Your task to perform on an android device: open app "Etsy: Buy & Sell Unique Items" (install if not already installed) Image 0: 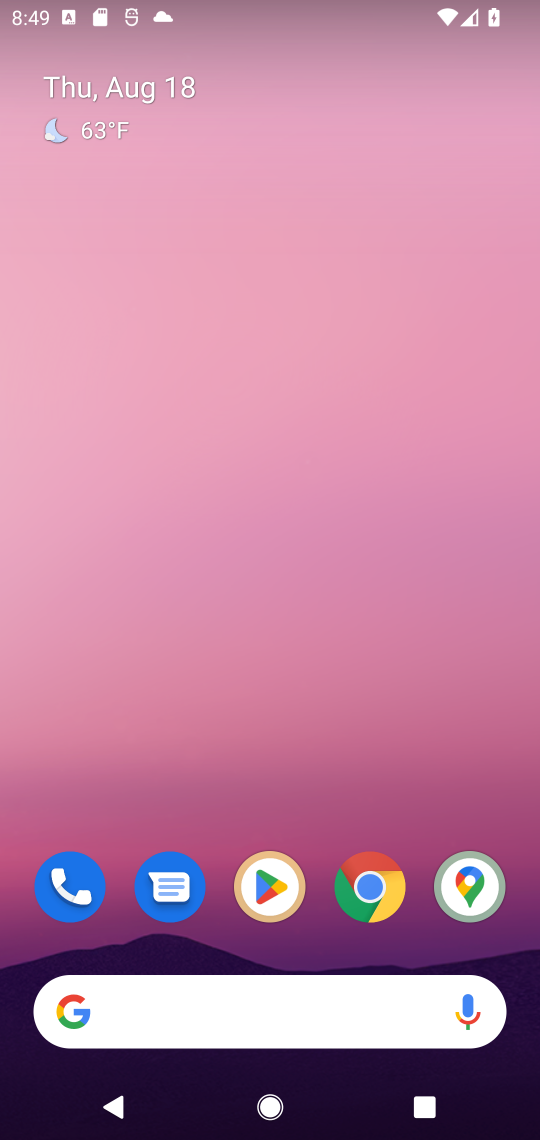
Step 0: click (264, 886)
Your task to perform on an android device: open app "Etsy: Buy & Sell Unique Items" (install if not already installed) Image 1: 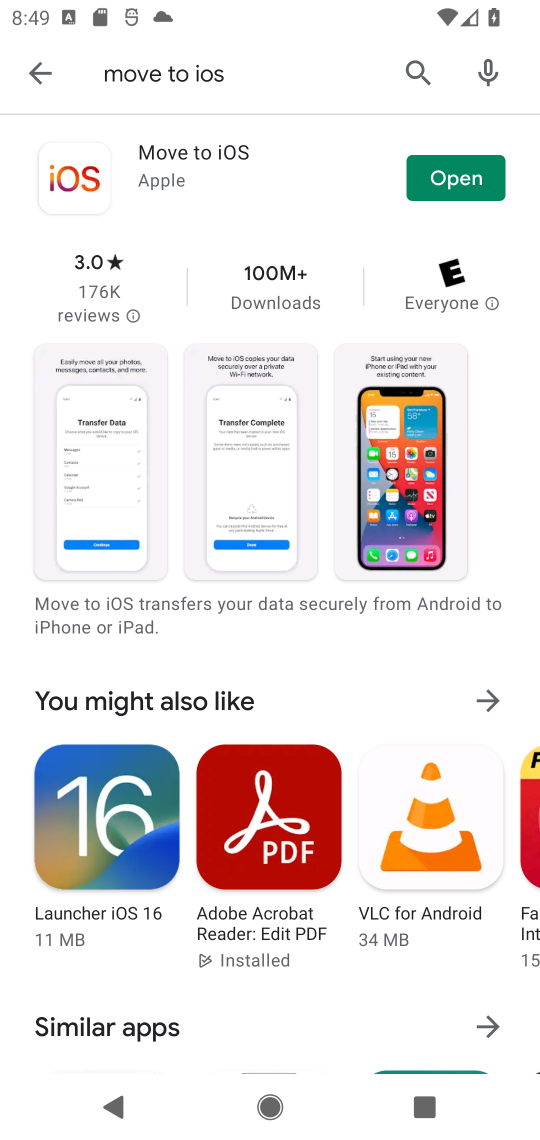
Step 1: click (417, 69)
Your task to perform on an android device: open app "Etsy: Buy & Sell Unique Items" (install if not already installed) Image 2: 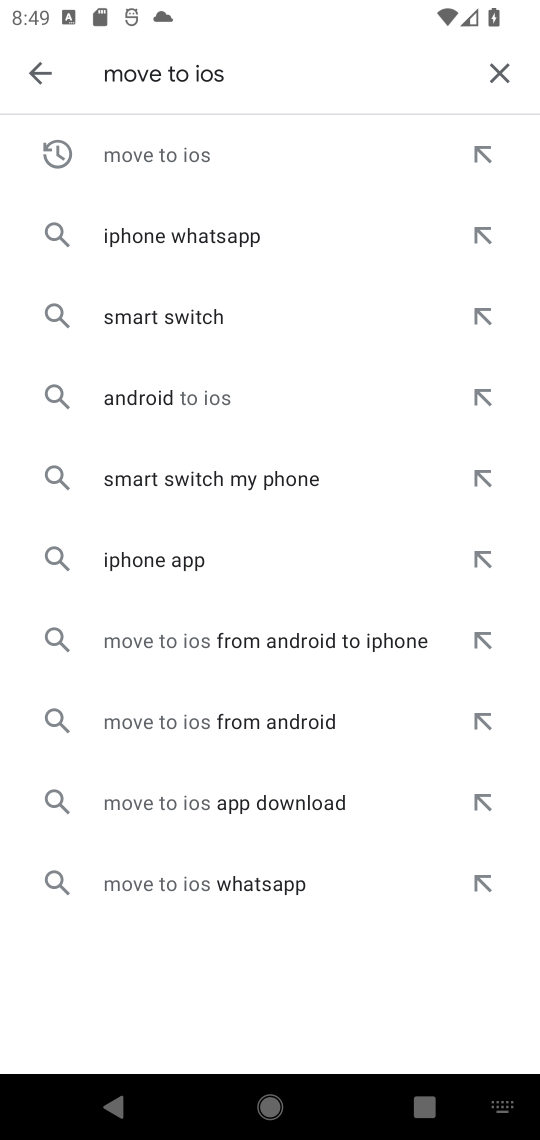
Step 2: click (490, 71)
Your task to perform on an android device: open app "Etsy: Buy & Sell Unique Items" (install if not already installed) Image 3: 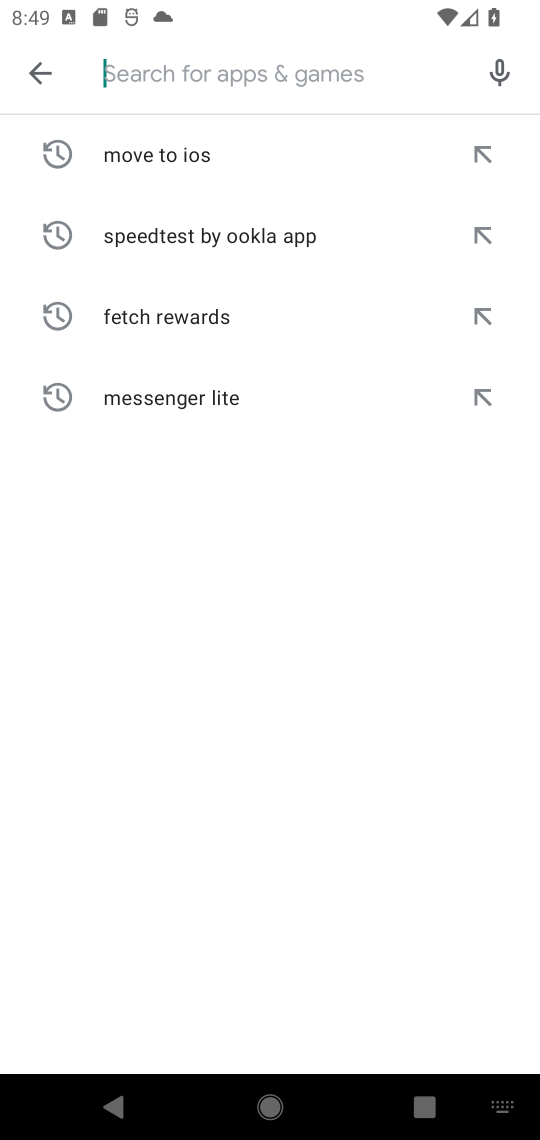
Step 3: type "Etsy: Buy & Sell Unique Item"
Your task to perform on an android device: open app "Etsy: Buy & Sell Unique Items" (install if not already installed) Image 4: 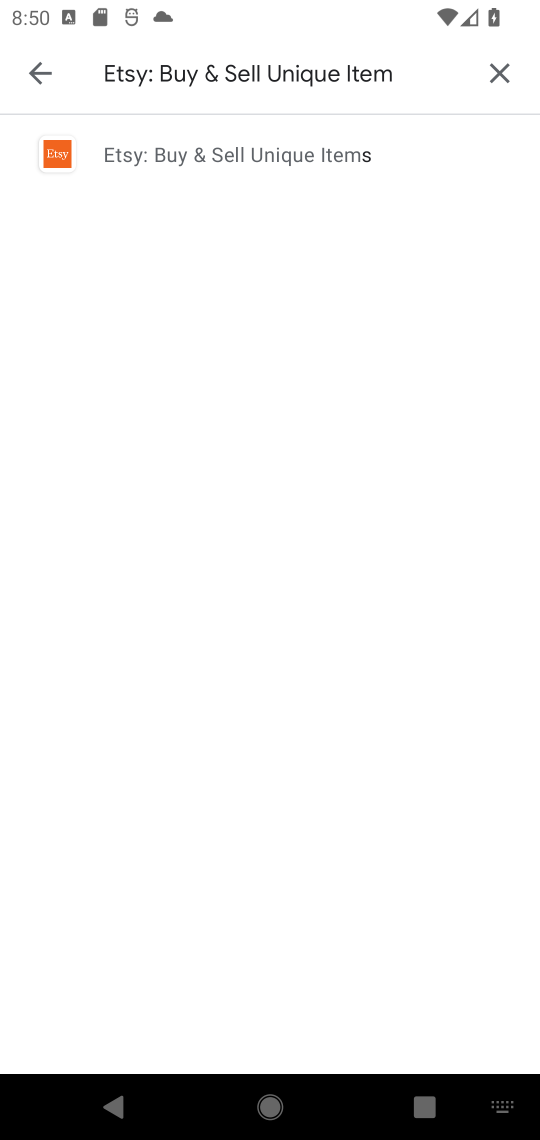
Step 4: click (340, 147)
Your task to perform on an android device: open app "Etsy: Buy & Sell Unique Items" (install if not already installed) Image 5: 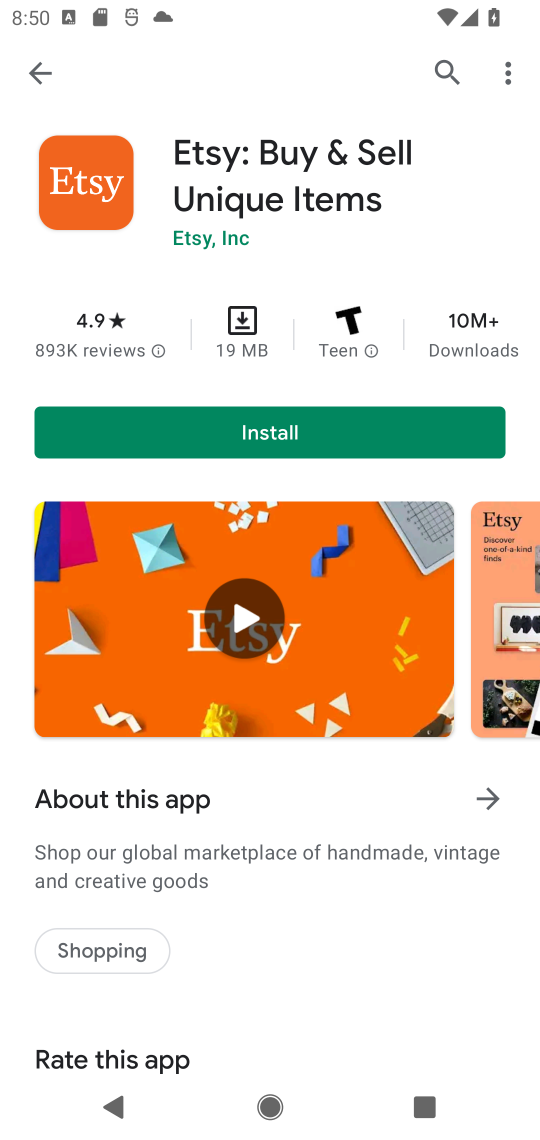
Step 5: press home button
Your task to perform on an android device: open app "Etsy: Buy & Sell Unique Items" (install if not already installed) Image 6: 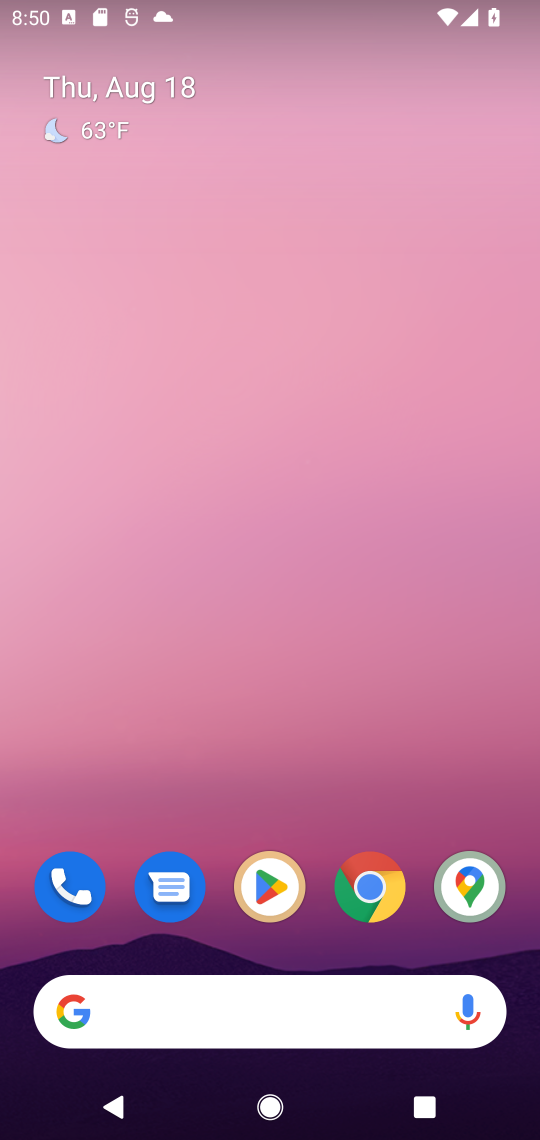
Step 6: click (266, 895)
Your task to perform on an android device: open app "Etsy: Buy & Sell Unique Items" (install if not already installed) Image 7: 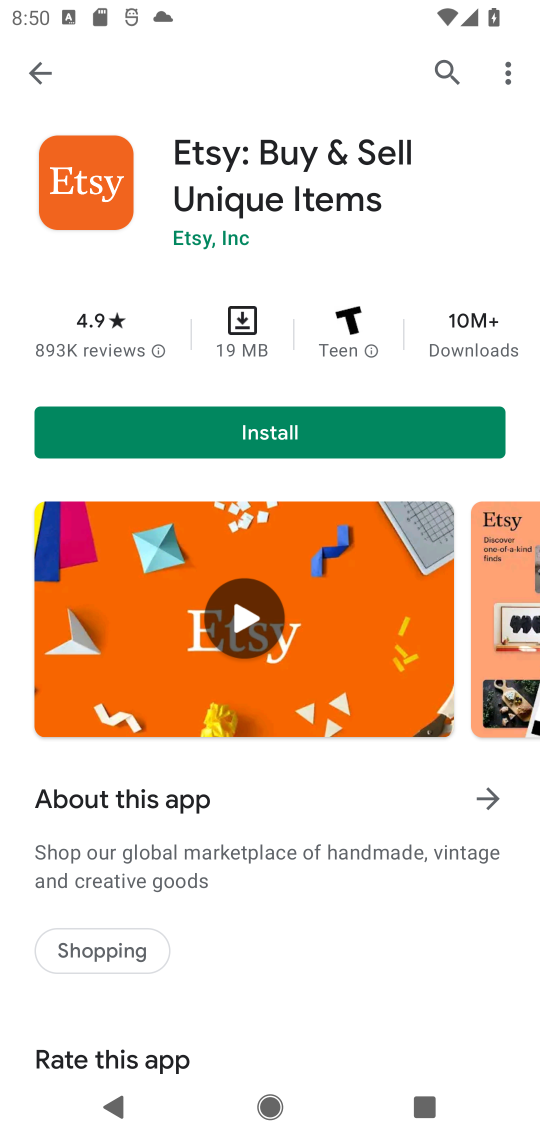
Step 7: click (306, 430)
Your task to perform on an android device: open app "Etsy: Buy & Sell Unique Items" (install if not already installed) Image 8: 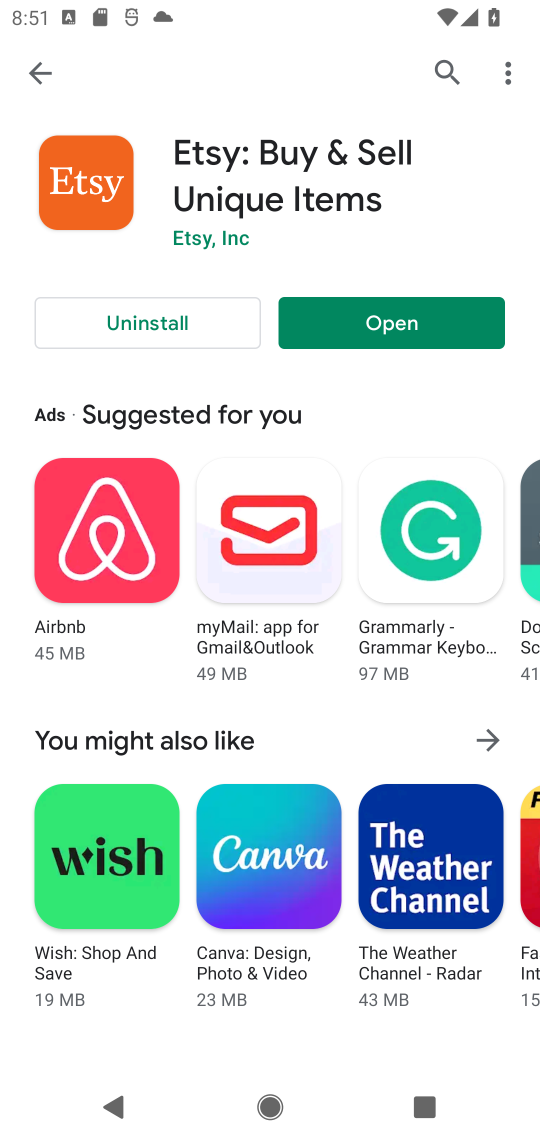
Step 8: click (415, 324)
Your task to perform on an android device: open app "Etsy: Buy & Sell Unique Items" (install if not already installed) Image 9: 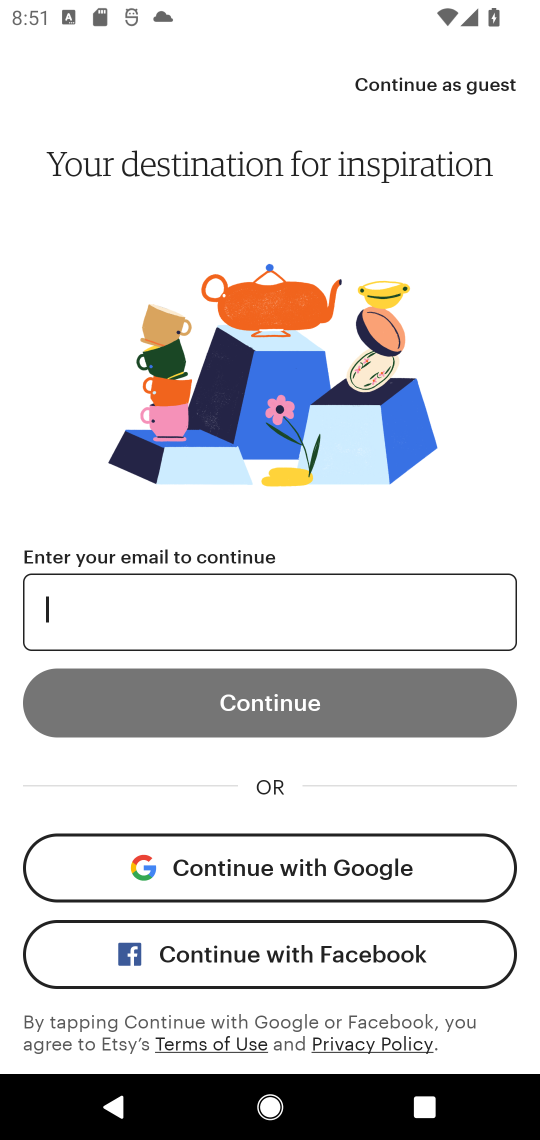
Step 9: task complete